Your task to perform on an android device: turn on location history Image 0: 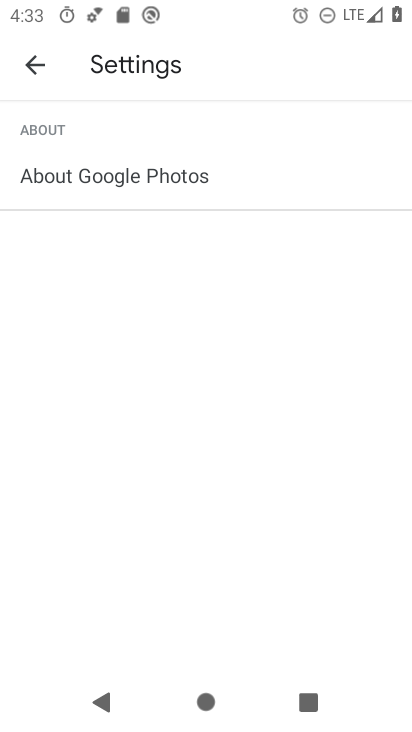
Step 0: press home button
Your task to perform on an android device: turn on location history Image 1: 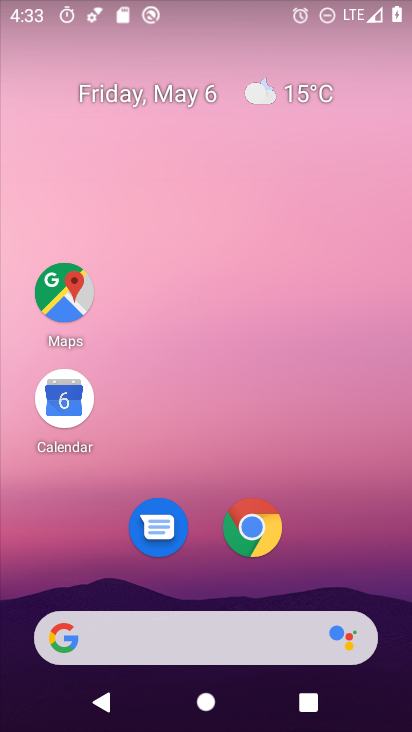
Step 1: drag from (310, 555) to (370, 138)
Your task to perform on an android device: turn on location history Image 2: 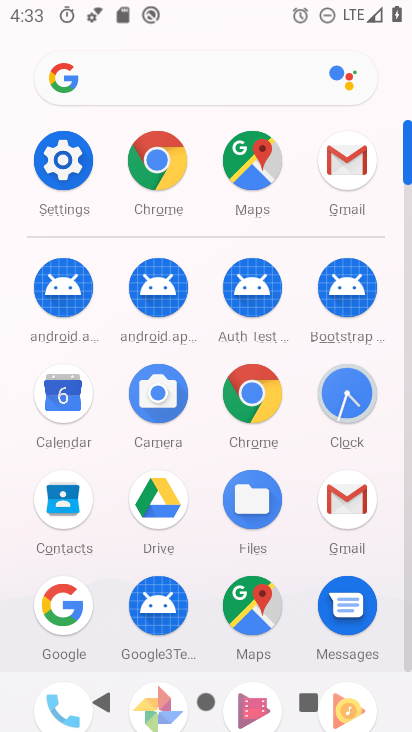
Step 2: click (64, 163)
Your task to perform on an android device: turn on location history Image 3: 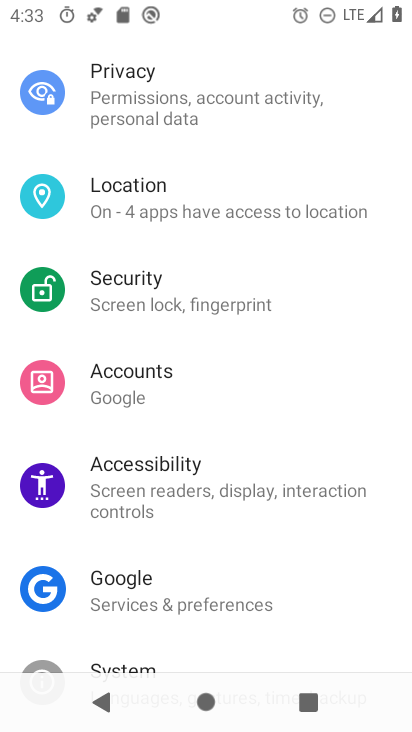
Step 3: click (215, 216)
Your task to perform on an android device: turn on location history Image 4: 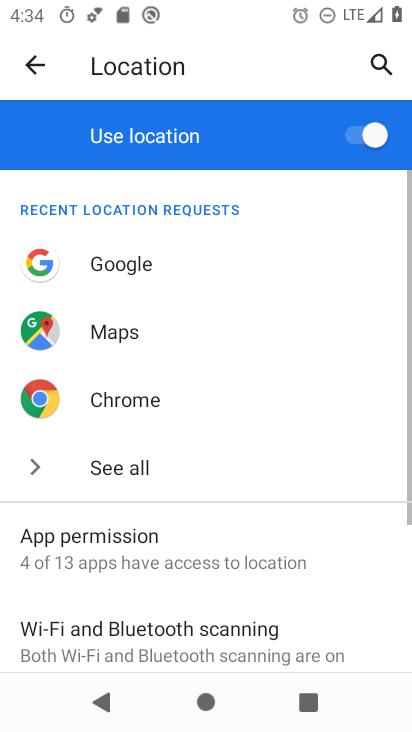
Step 4: drag from (183, 569) to (260, 104)
Your task to perform on an android device: turn on location history Image 5: 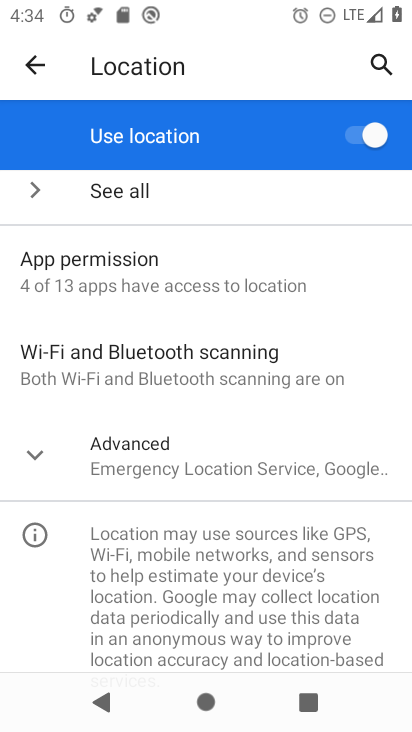
Step 5: click (234, 457)
Your task to perform on an android device: turn on location history Image 6: 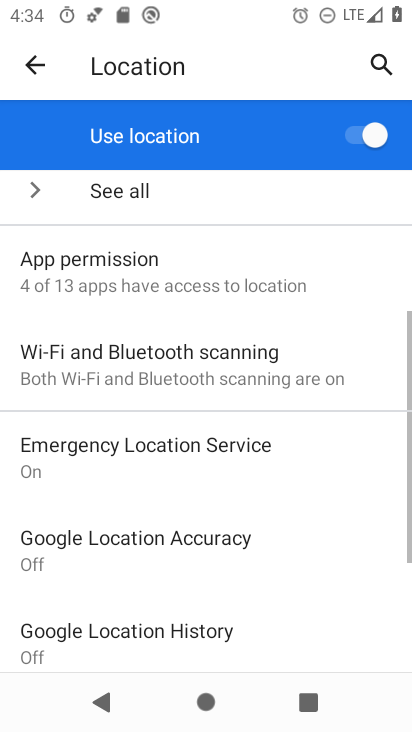
Step 6: drag from (205, 622) to (319, 295)
Your task to perform on an android device: turn on location history Image 7: 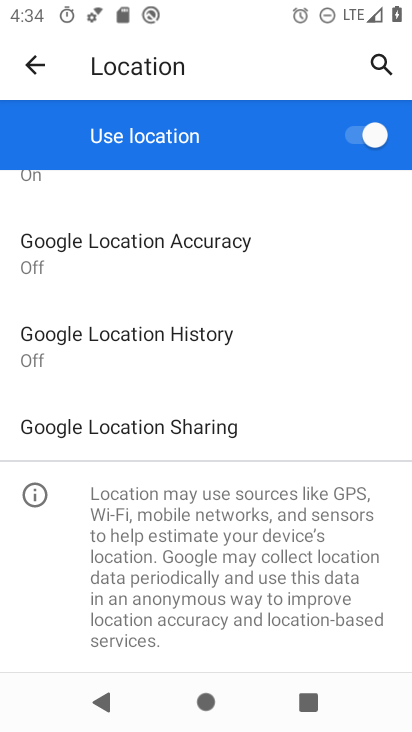
Step 7: click (183, 326)
Your task to perform on an android device: turn on location history Image 8: 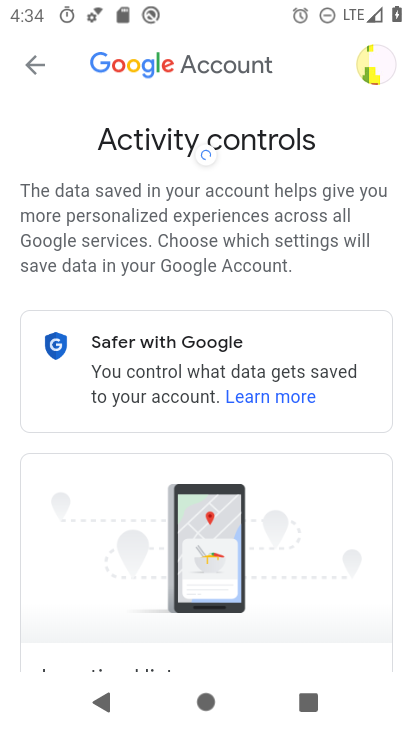
Step 8: task complete